Your task to perform on an android device: Do I have any events today? Image 0: 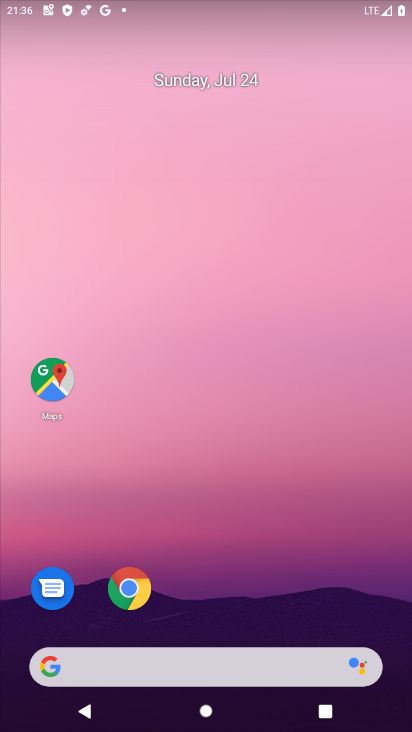
Step 0: drag from (197, 655) to (219, 147)
Your task to perform on an android device: Do I have any events today? Image 1: 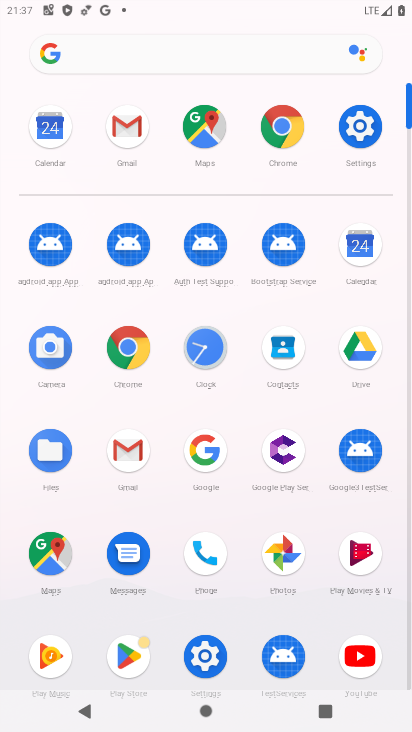
Step 1: click (376, 241)
Your task to perform on an android device: Do I have any events today? Image 2: 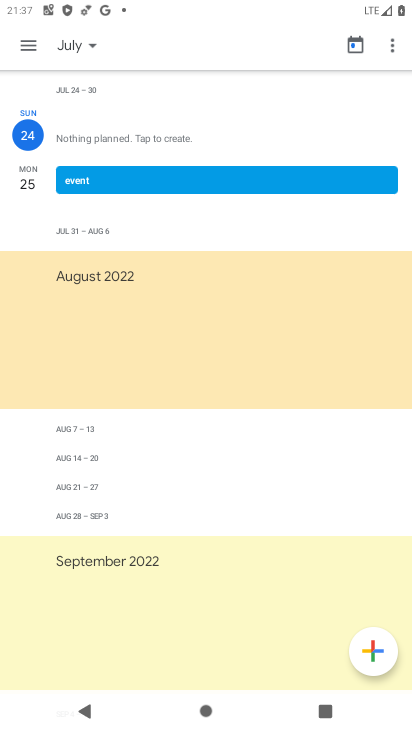
Step 2: click (22, 43)
Your task to perform on an android device: Do I have any events today? Image 3: 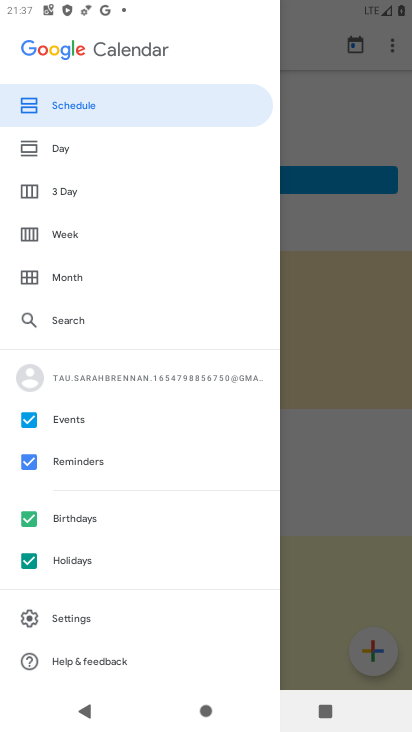
Step 3: click (91, 100)
Your task to perform on an android device: Do I have any events today? Image 4: 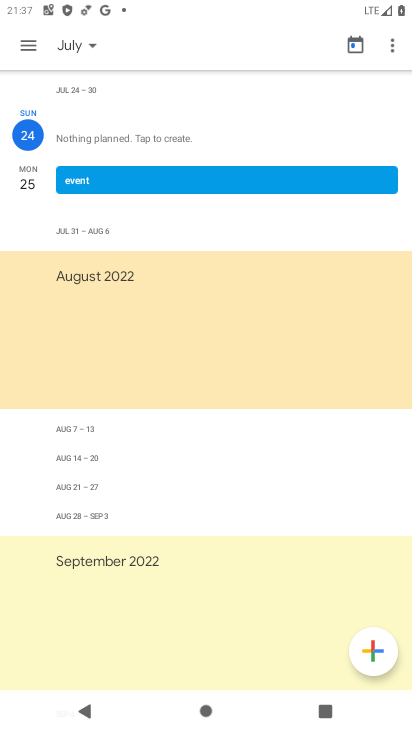
Step 4: task complete